Your task to perform on an android device: create a new album in the google photos Image 0: 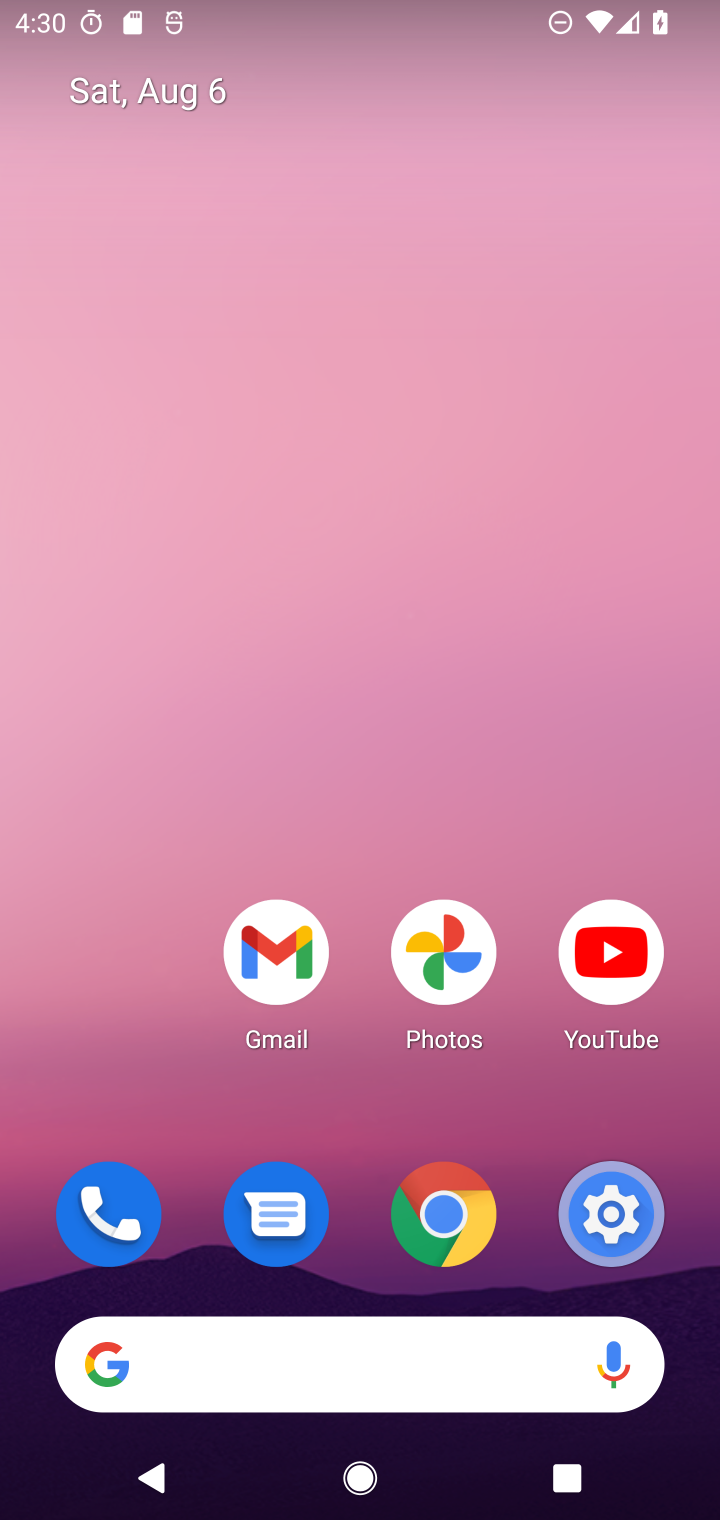
Step 0: click (455, 969)
Your task to perform on an android device: create a new album in the google photos Image 1: 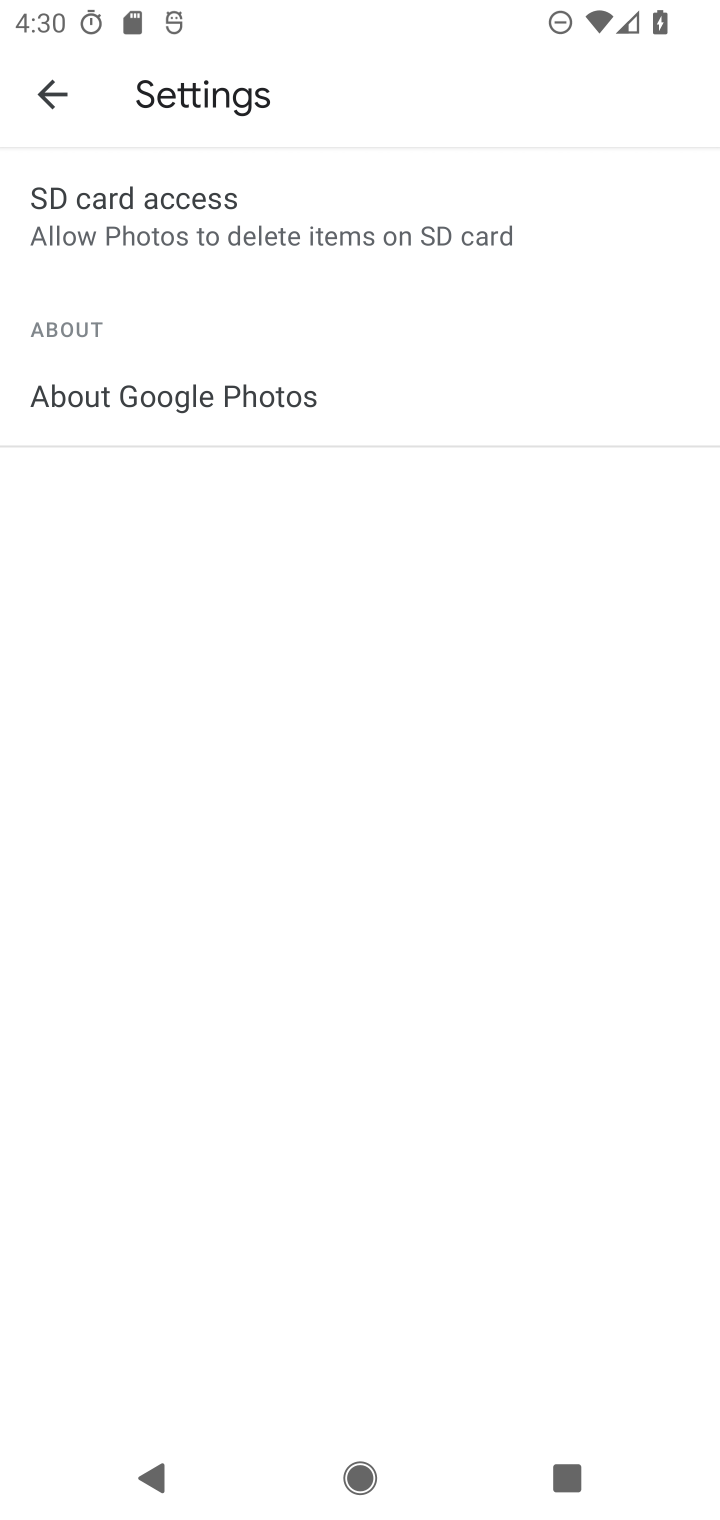
Step 1: click (38, 79)
Your task to perform on an android device: create a new album in the google photos Image 2: 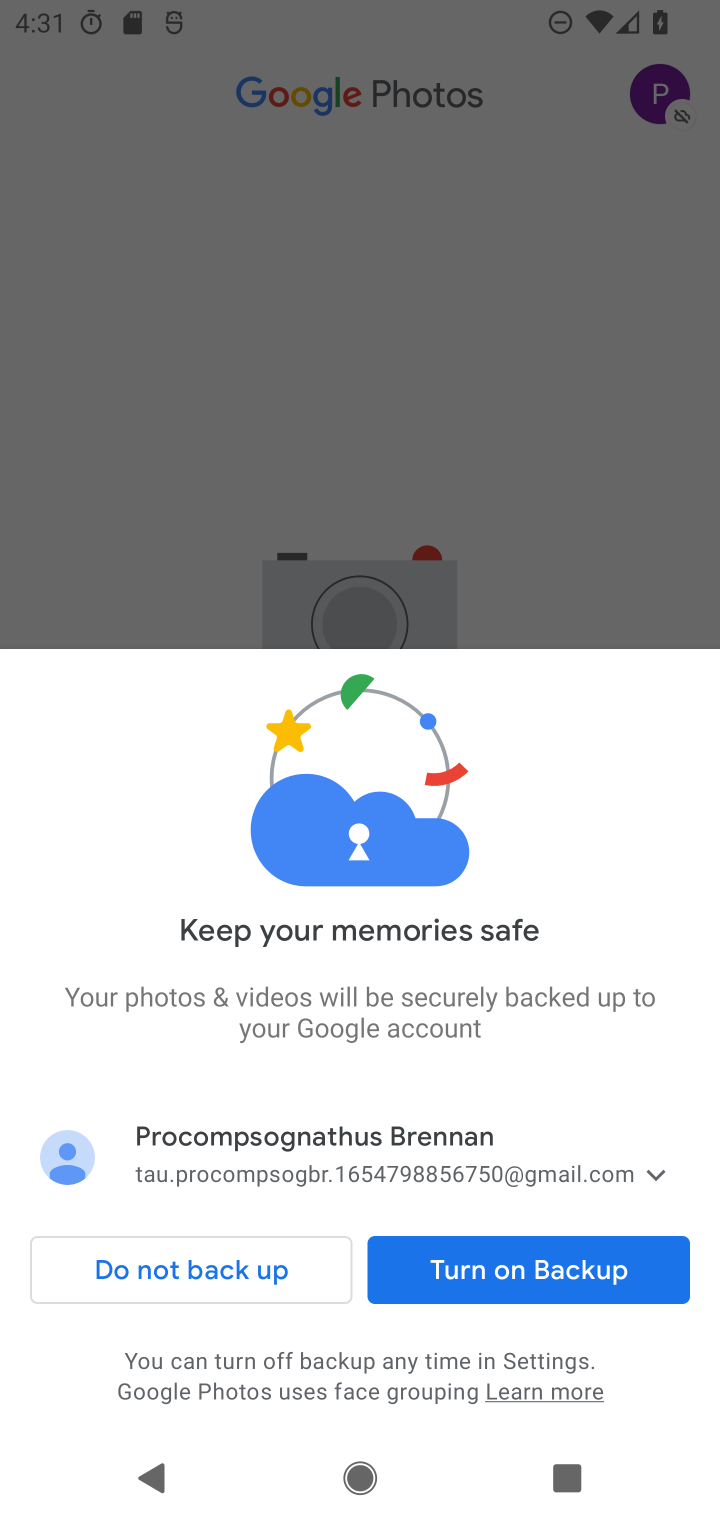
Step 2: click (552, 1269)
Your task to perform on an android device: create a new album in the google photos Image 3: 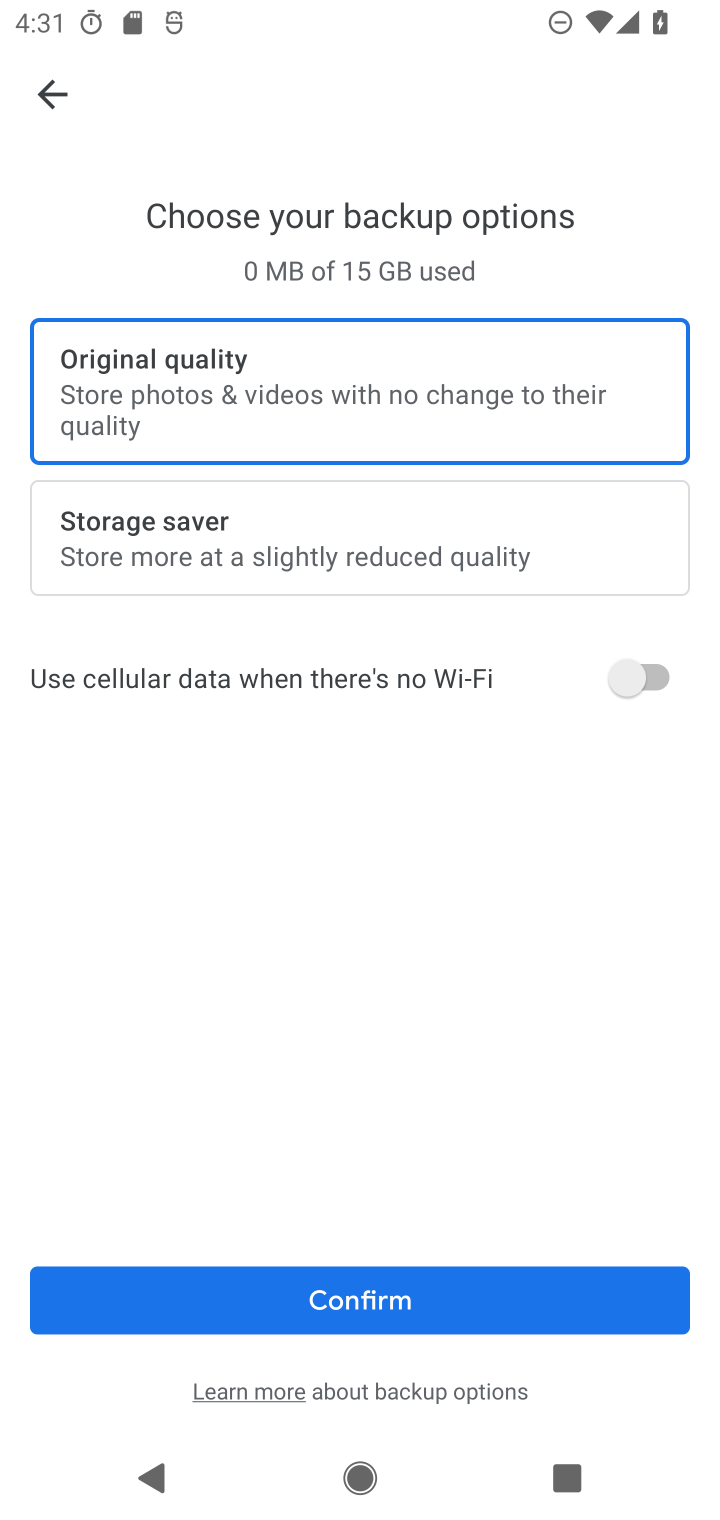
Step 3: click (40, 78)
Your task to perform on an android device: create a new album in the google photos Image 4: 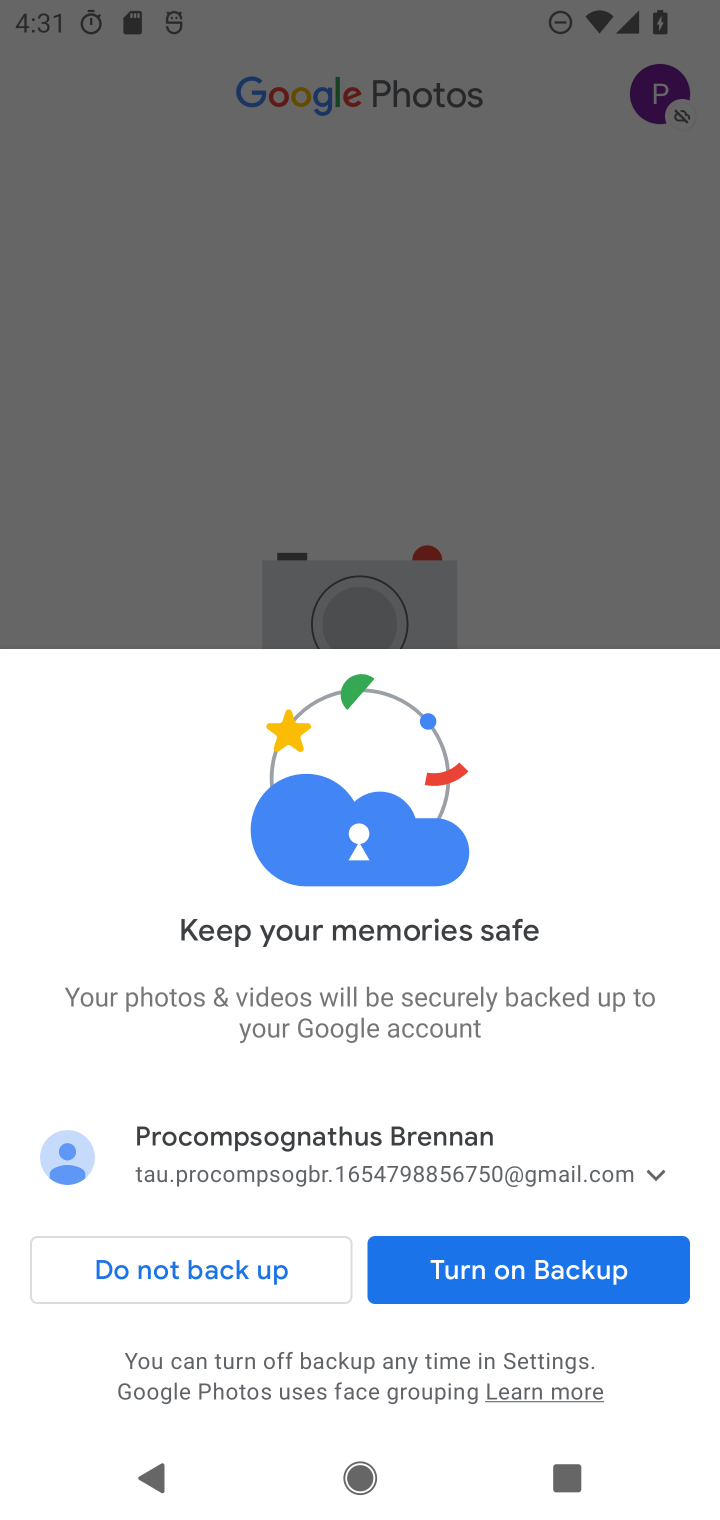
Step 4: press back button
Your task to perform on an android device: create a new album in the google photos Image 5: 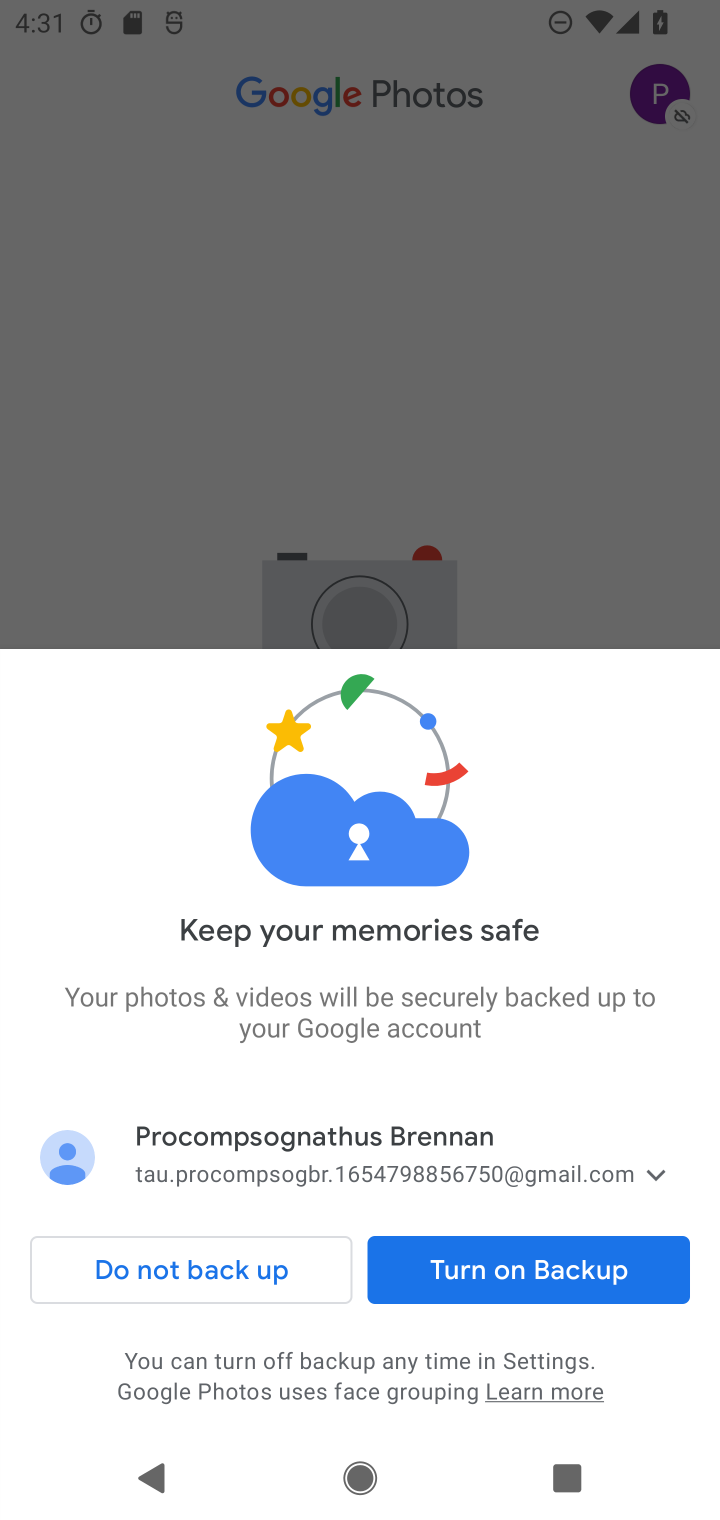
Step 5: click (447, 1267)
Your task to perform on an android device: create a new album in the google photos Image 6: 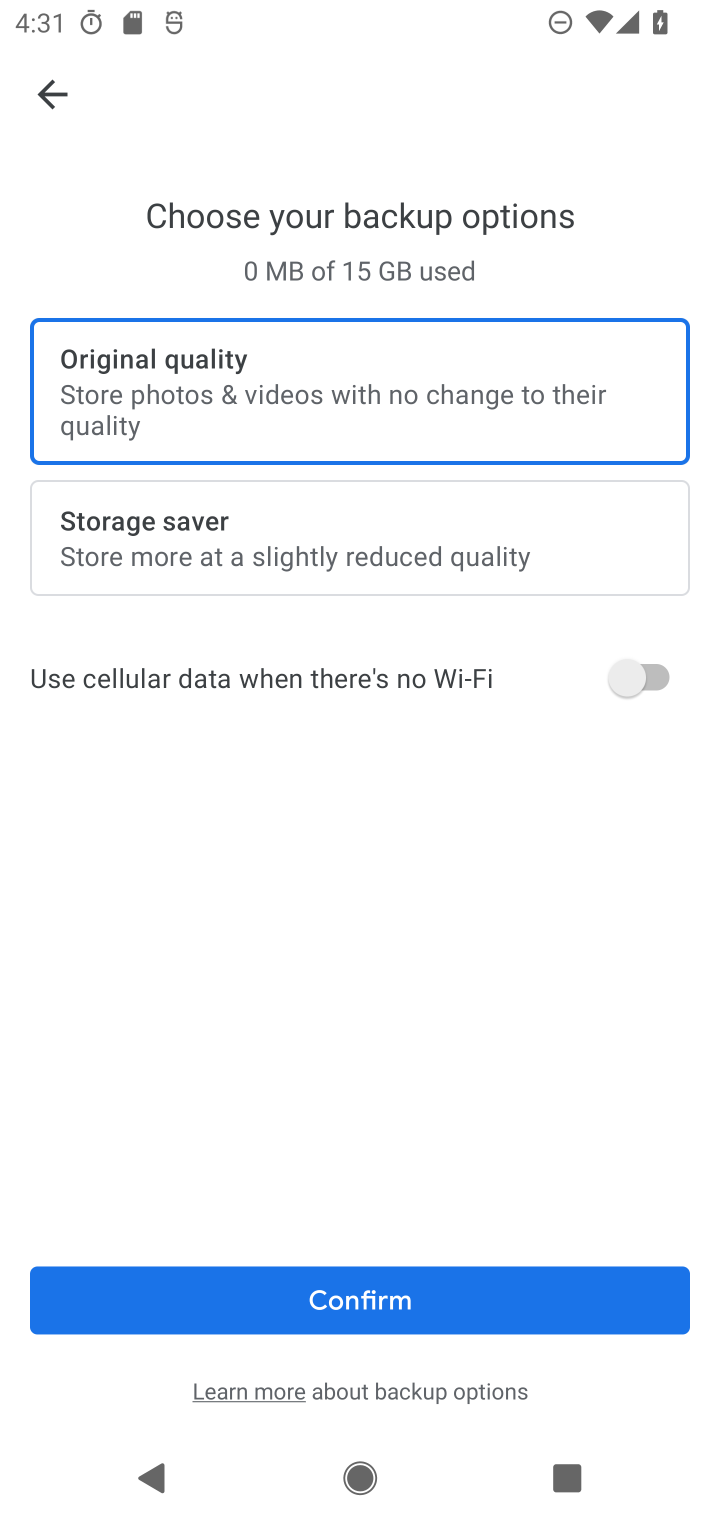
Step 6: click (347, 1313)
Your task to perform on an android device: create a new album in the google photos Image 7: 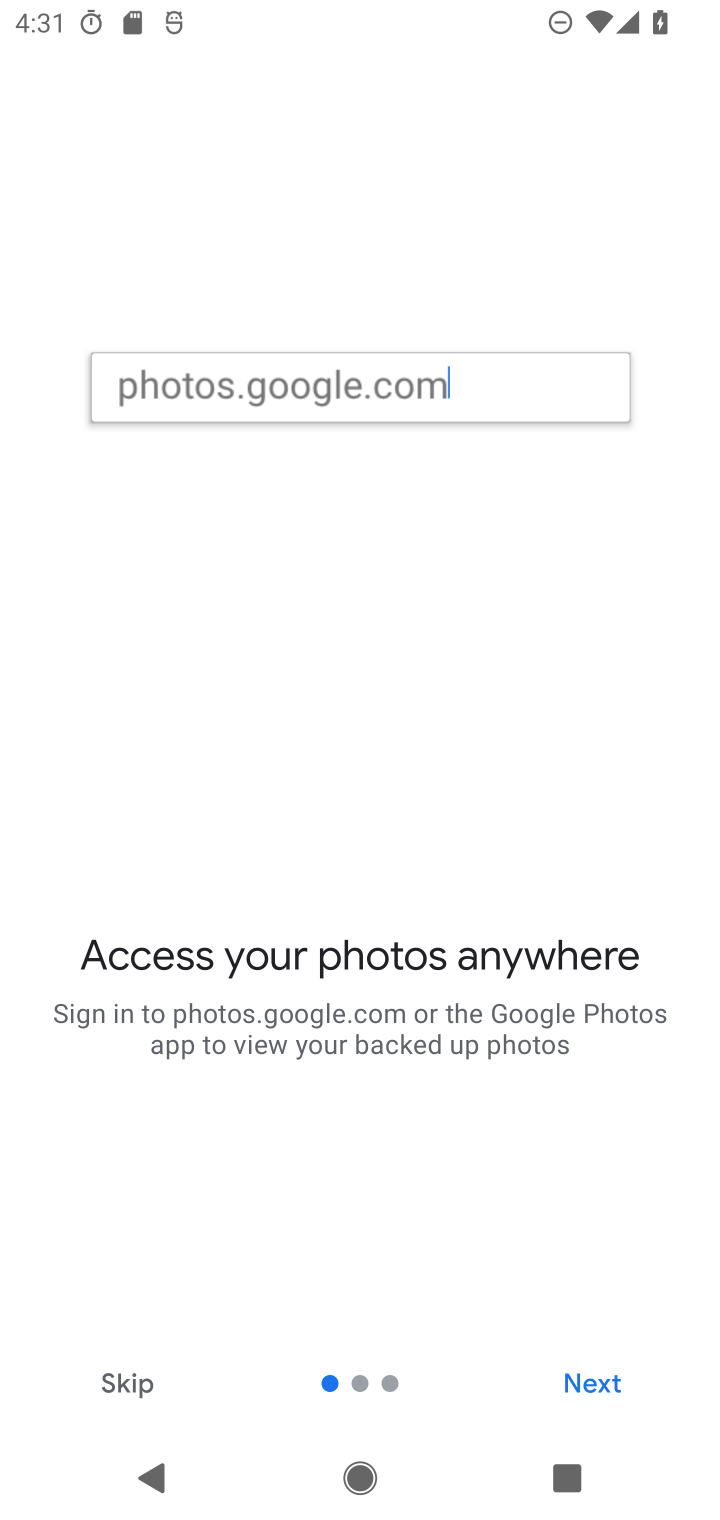
Step 7: click (602, 1388)
Your task to perform on an android device: create a new album in the google photos Image 8: 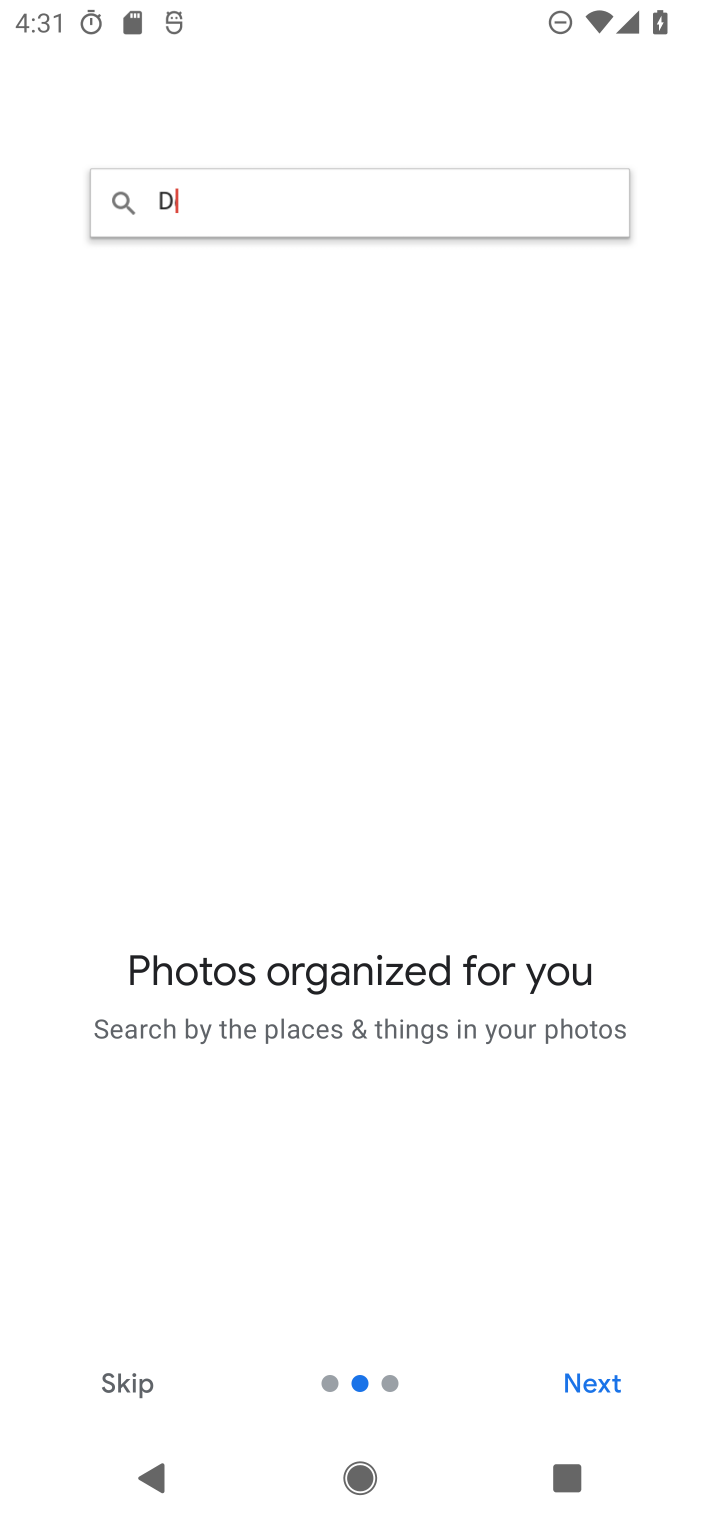
Step 8: click (602, 1388)
Your task to perform on an android device: create a new album in the google photos Image 9: 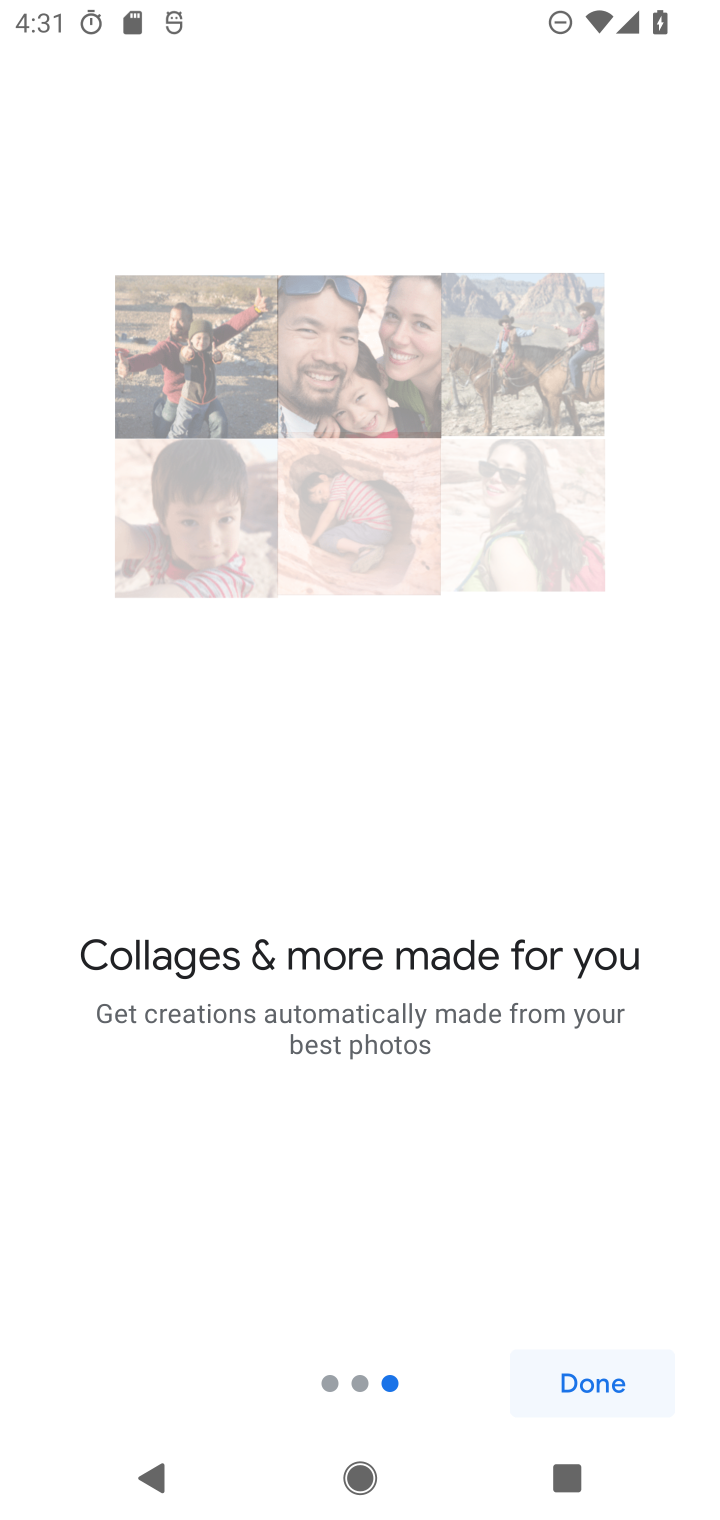
Step 9: click (602, 1388)
Your task to perform on an android device: create a new album in the google photos Image 10: 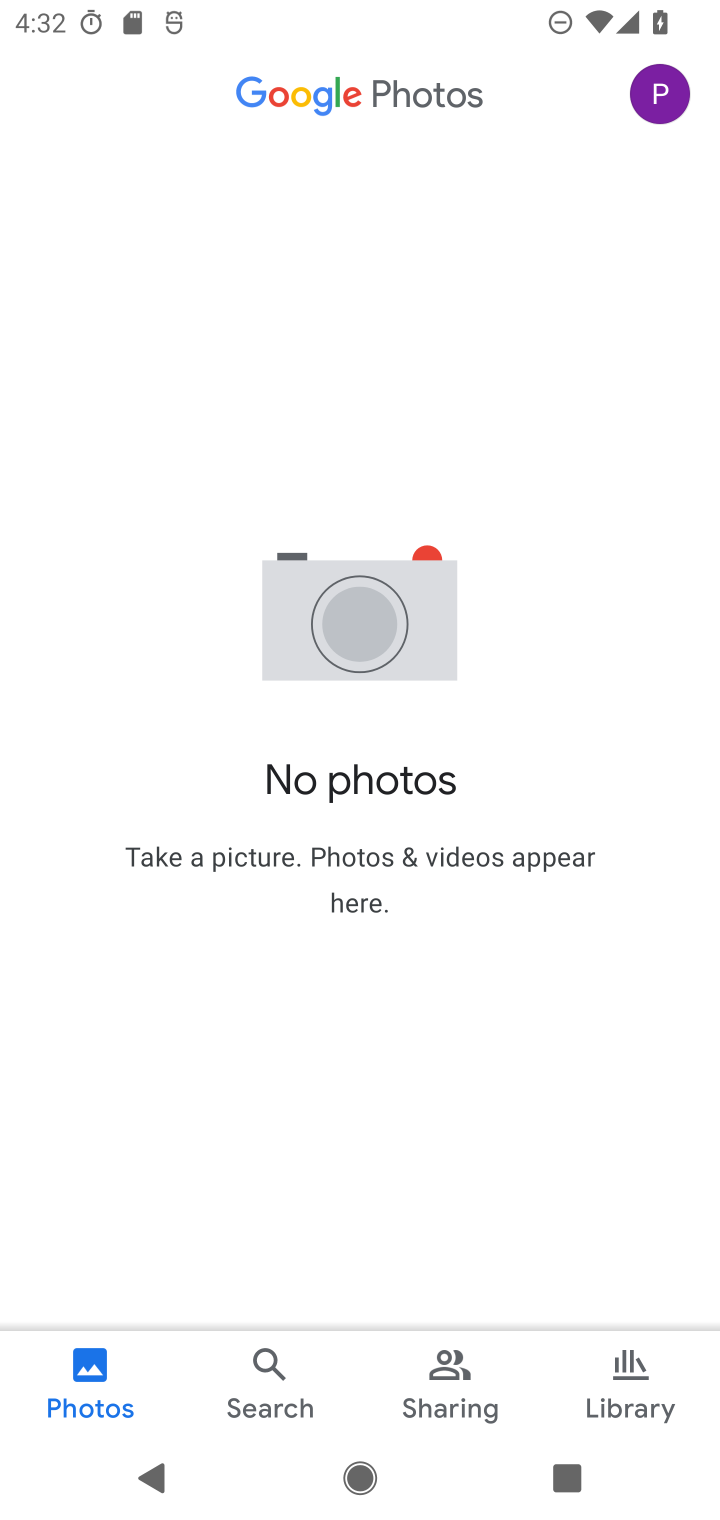
Step 10: click (615, 1382)
Your task to perform on an android device: create a new album in the google photos Image 11: 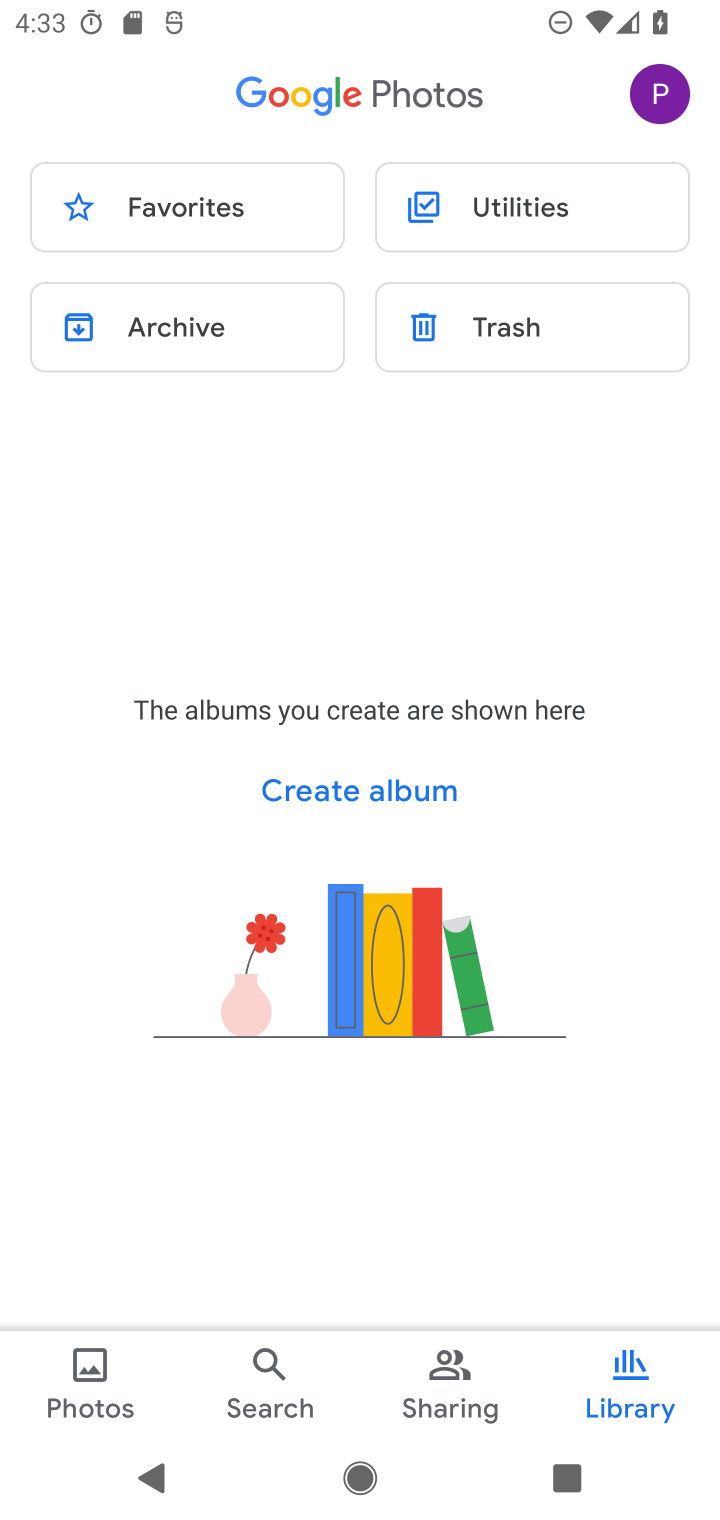
Step 11: click (380, 795)
Your task to perform on an android device: create a new album in the google photos Image 12: 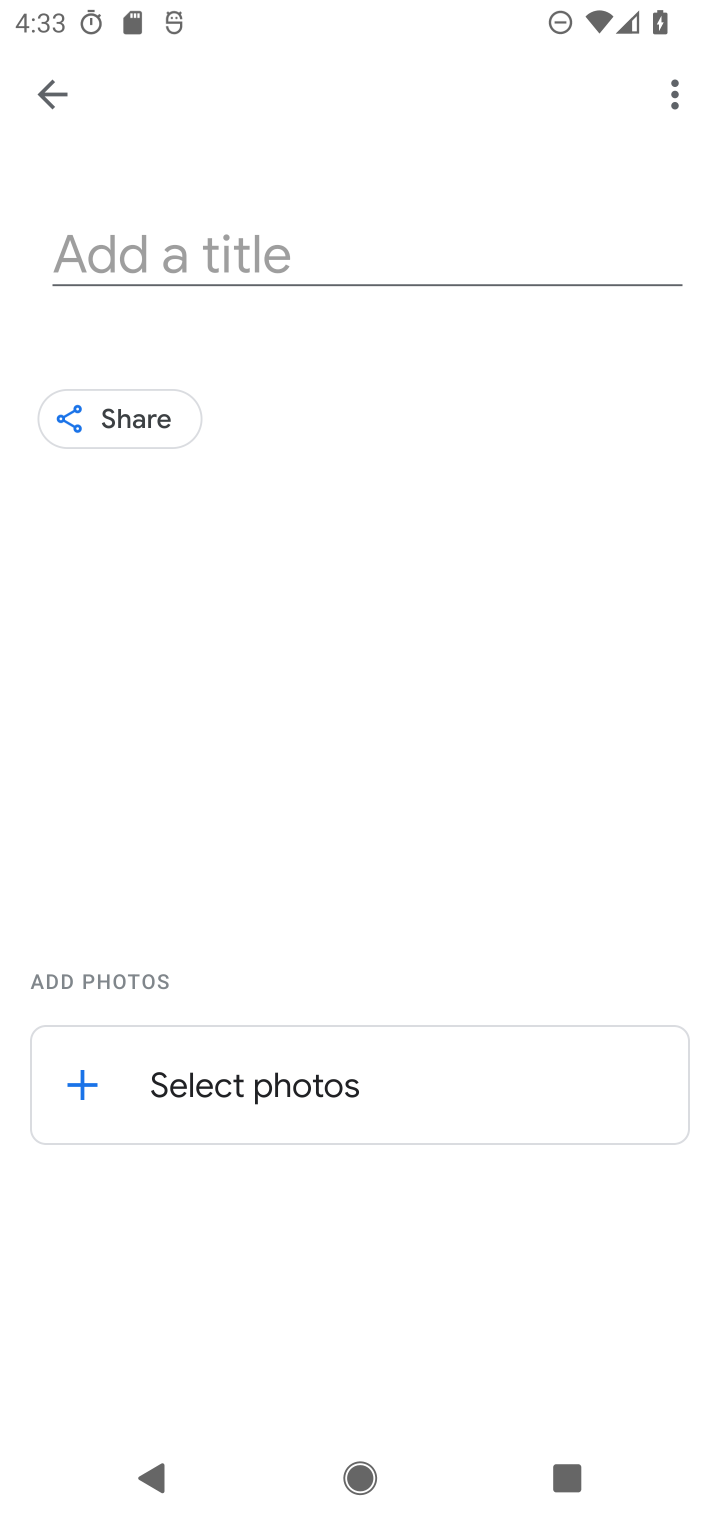
Step 12: click (240, 1074)
Your task to perform on an android device: create a new album in the google photos Image 13: 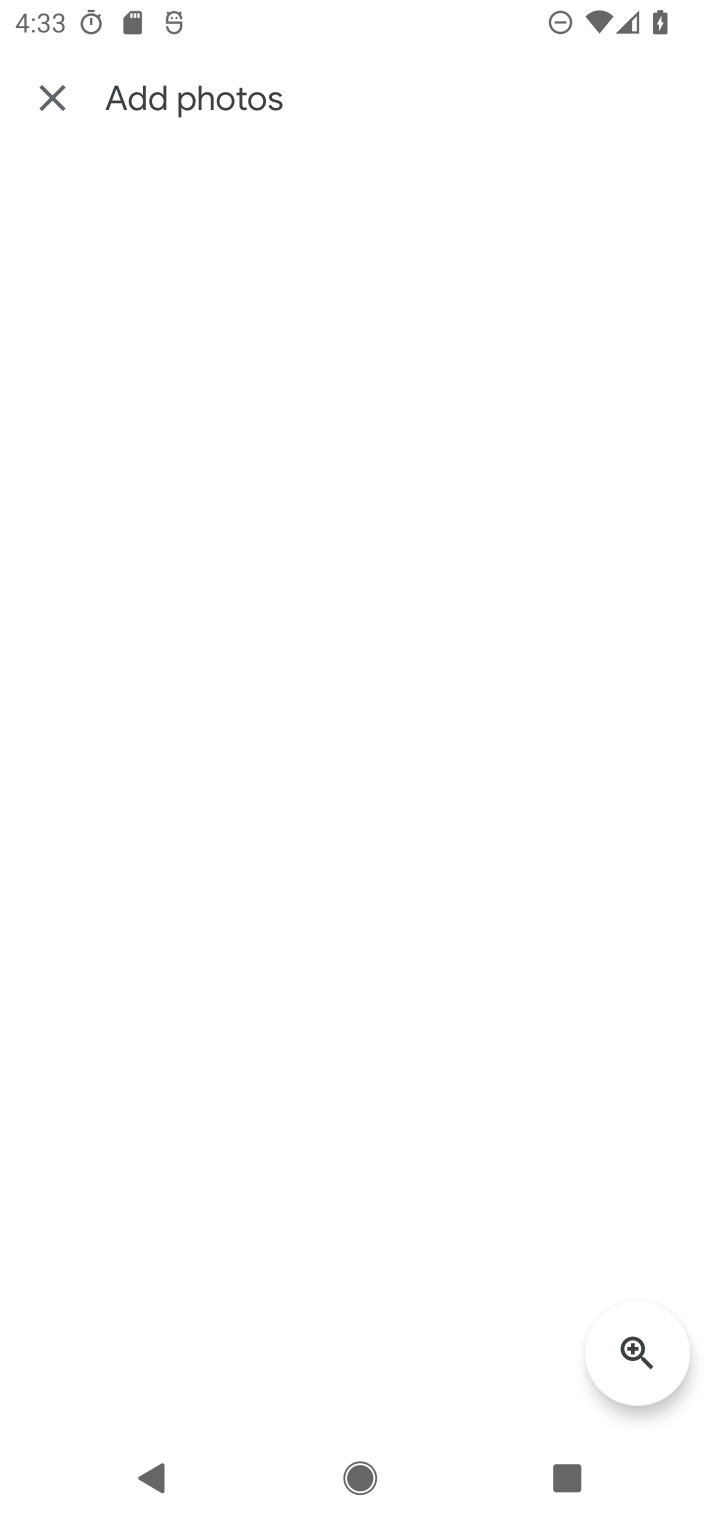
Step 13: task complete